Your task to perform on an android device: toggle location history Image 0: 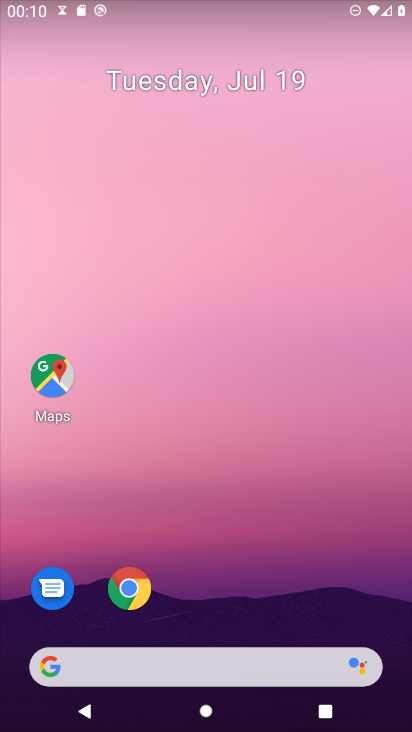
Step 0: press home button
Your task to perform on an android device: toggle location history Image 1: 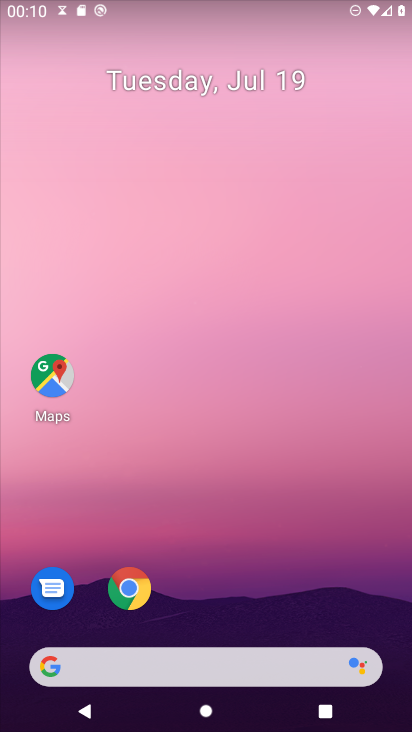
Step 1: drag from (292, 616) to (337, 89)
Your task to perform on an android device: toggle location history Image 2: 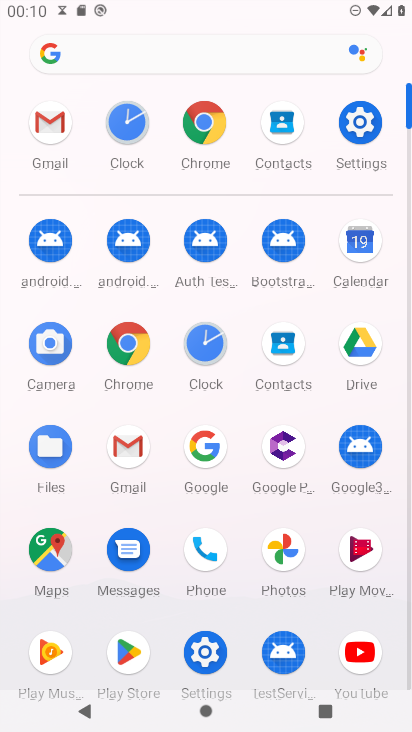
Step 2: click (360, 128)
Your task to perform on an android device: toggle location history Image 3: 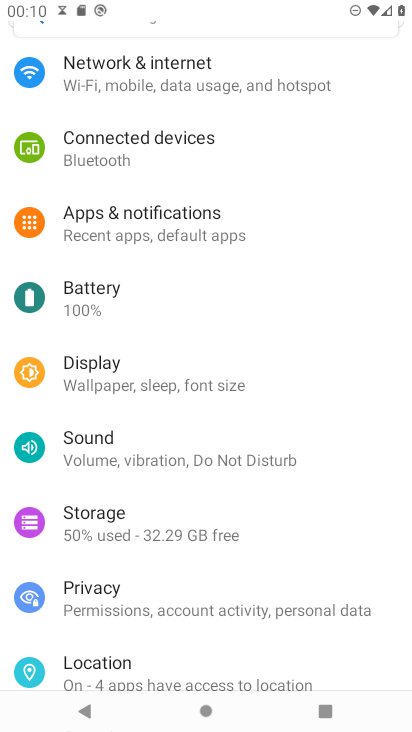
Step 3: drag from (166, 575) to (196, 249)
Your task to perform on an android device: toggle location history Image 4: 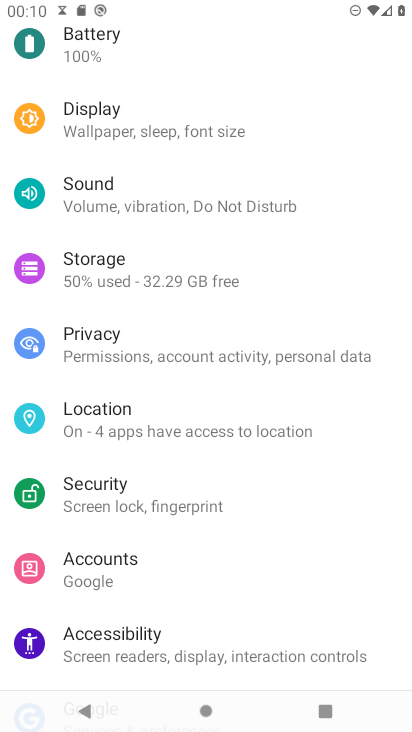
Step 4: drag from (231, 578) to (225, 622)
Your task to perform on an android device: toggle location history Image 5: 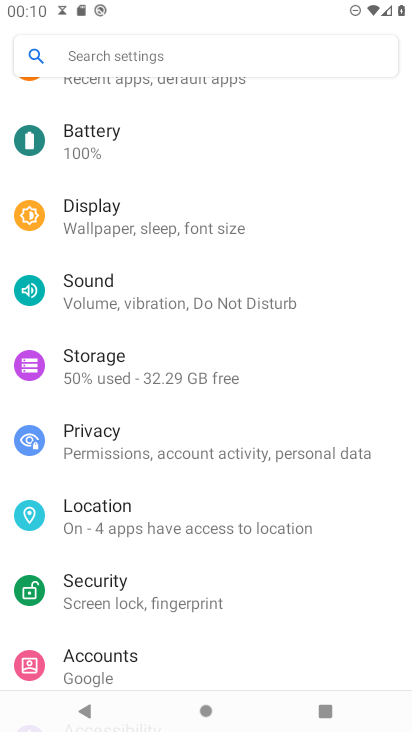
Step 5: click (157, 518)
Your task to perform on an android device: toggle location history Image 6: 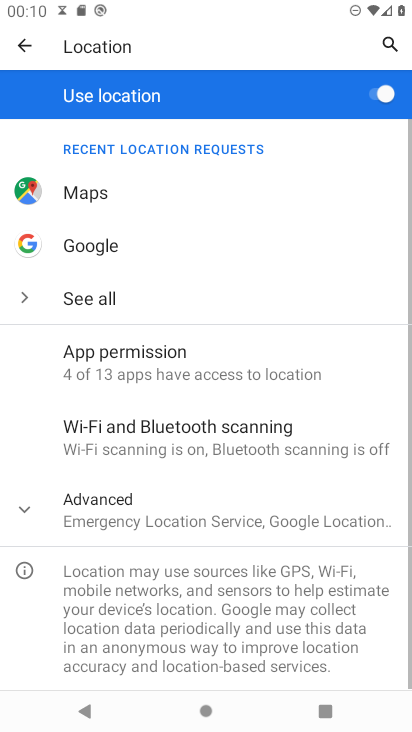
Step 6: click (19, 503)
Your task to perform on an android device: toggle location history Image 7: 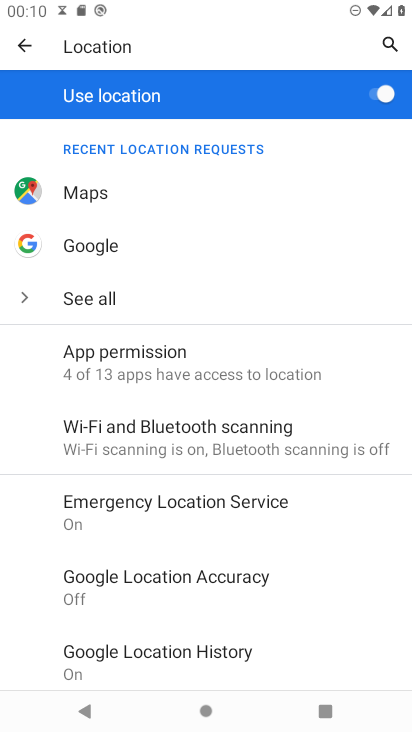
Step 7: click (189, 646)
Your task to perform on an android device: toggle location history Image 8: 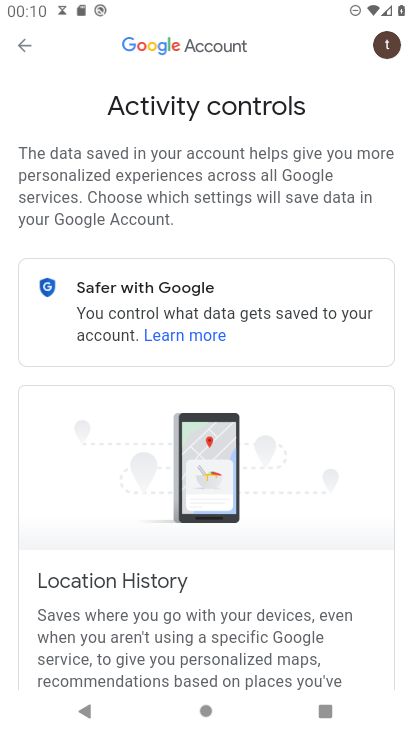
Step 8: drag from (342, 569) to (351, 228)
Your task to perform on an android device: toggle location history Image 9: 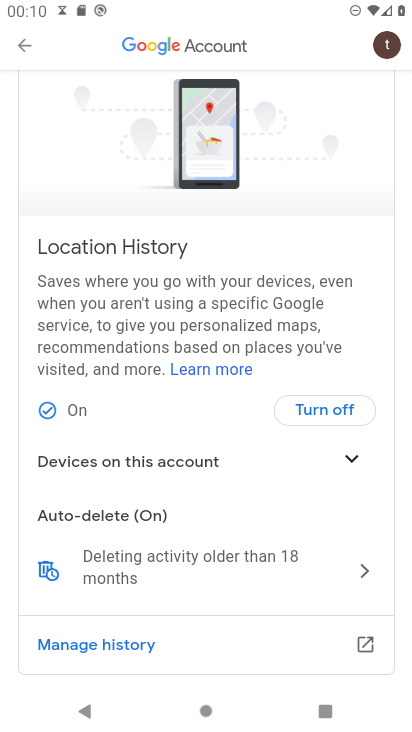
Step 9: click (334, 407)
Your task to perform on an android device: toggle location history Image 10: 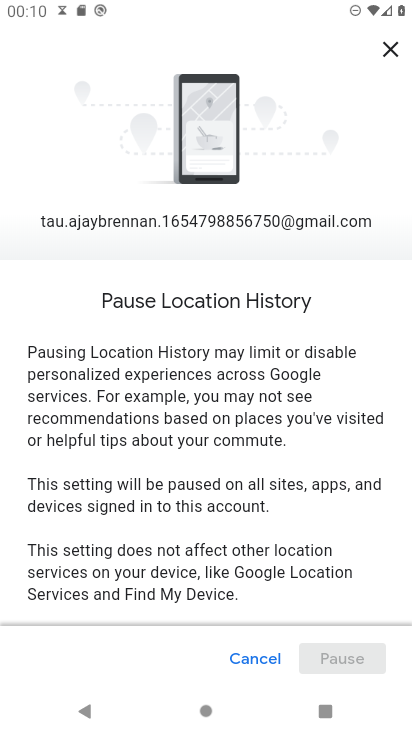
Step 10: drag from (338, 599) to (352, 310)
Your task to perform on an android device: toggle location history Image 11: 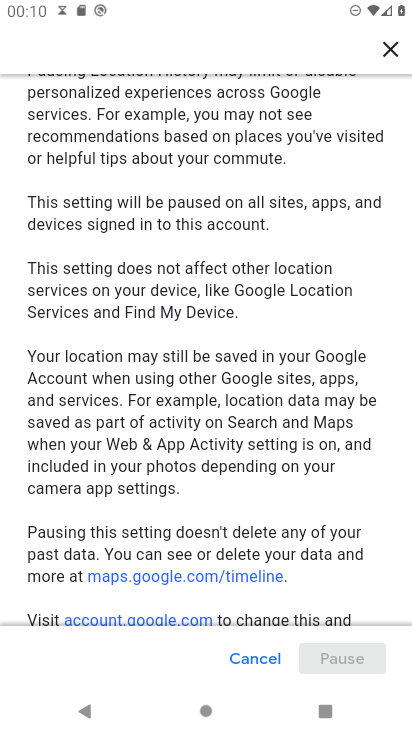
Step 11: drag from (321, 561) to (324, 217)
Your task to perform on an android device: toggle location history Image 12: 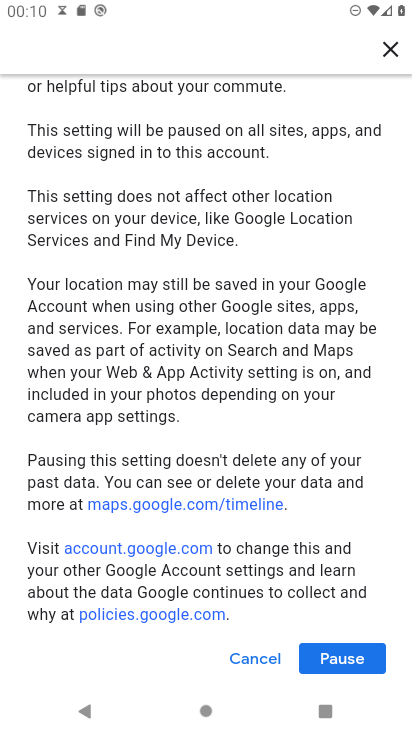
Step 12: click (338, 651)
Your task to perform on an android device: toggle location history Image 13: 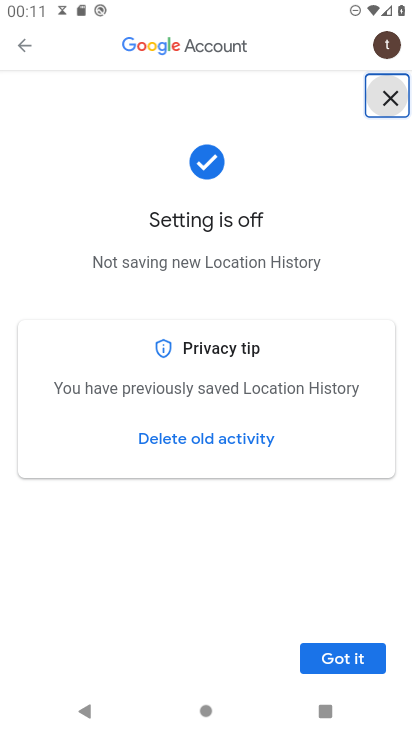
Step 13: click (344, 664)
Your task to perform on an android device: toggle location history Image 14: 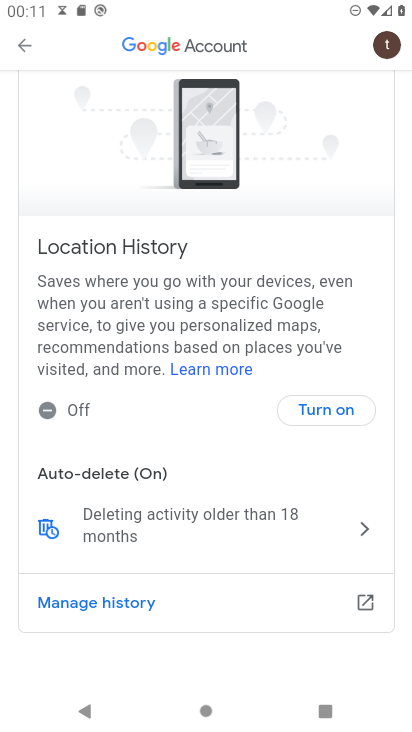
Step 14: task complete